Your task to perform on an android device: see tabs open on other devices in the chrome app Image 0: 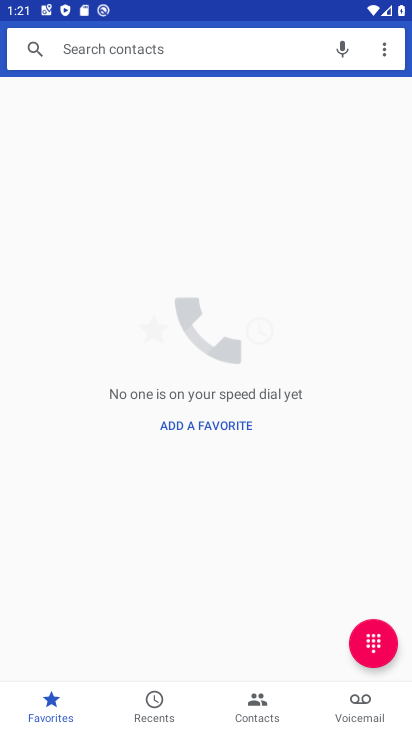
Step 0: press home button
Your task to perform on an android device: see tabs open on other devices in the chrome app Image 1: 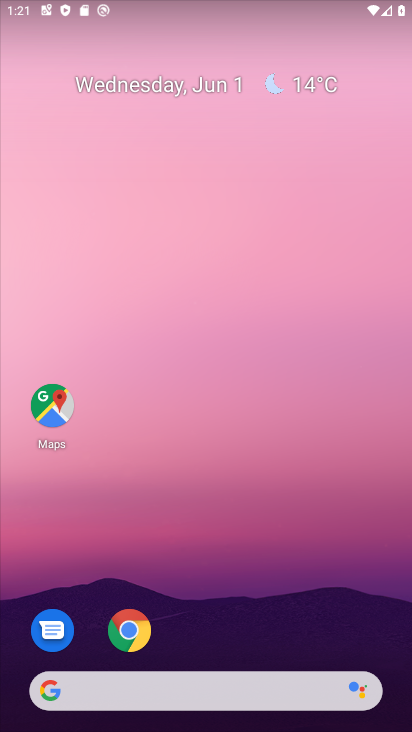
Step 1: click (126, 623)
Your task to perform on an android device: see tabs open on other devices in the chrome app Image 2: 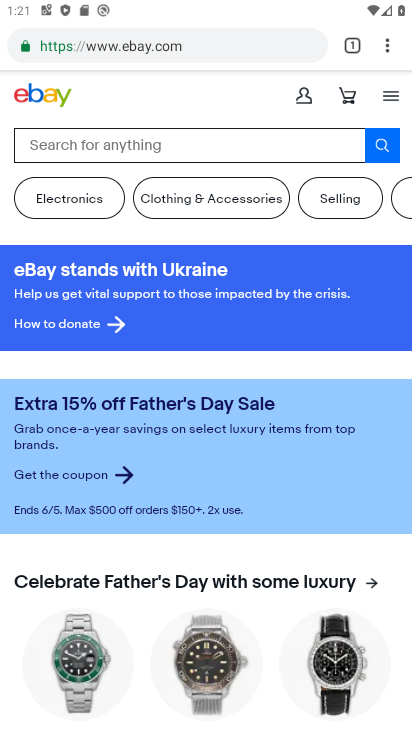
Step 2: click (384, 41)
Your task to perform on an android device: see tabs open on other devices in the chrome app Image 3: 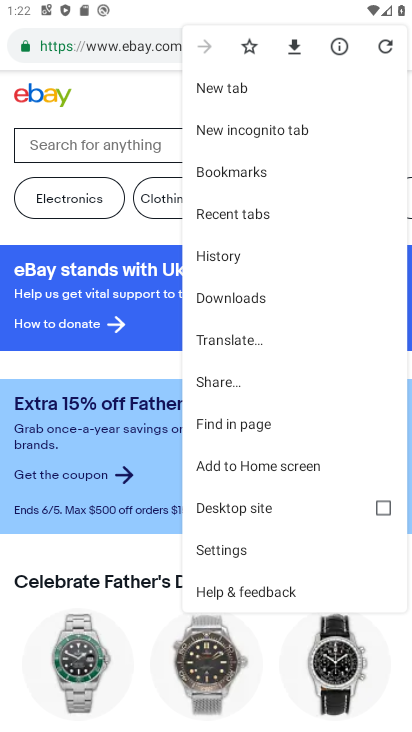
Step 3: click (271, 212)
Your task to perform on an android device: see tabs open on other devices in the chrome app Image 4: 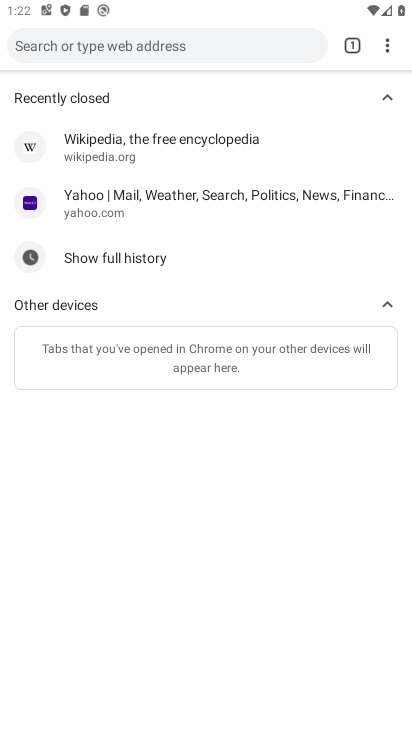
Step 4: task complete